Your task to perform on an android device: toggle show notifications on the lock screen Image 0: 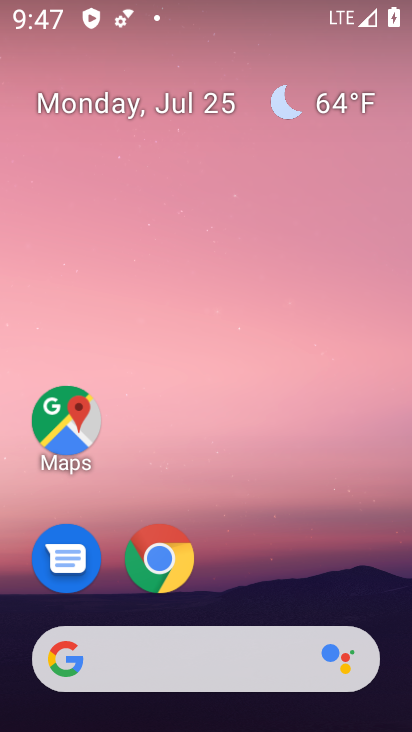
Step 0: drag from (340, 548) to (325, 158)
Your task to perform on an android device: toggle show notifications on the lock screen Image 1: 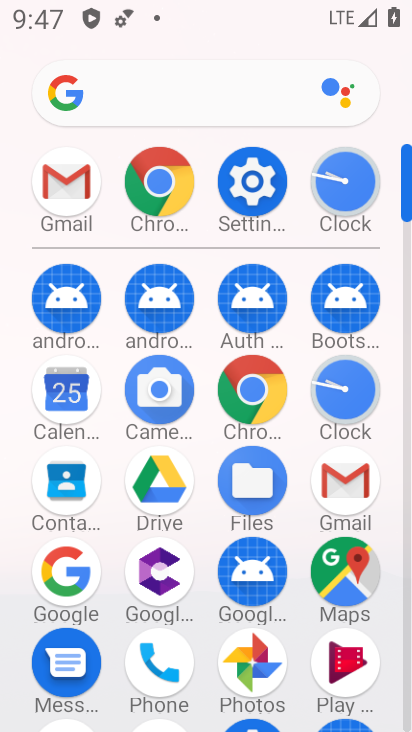
Step 1: click (258, 189)
Your task to perform on an android device: toggle show notifications on the lock screen Image 2: 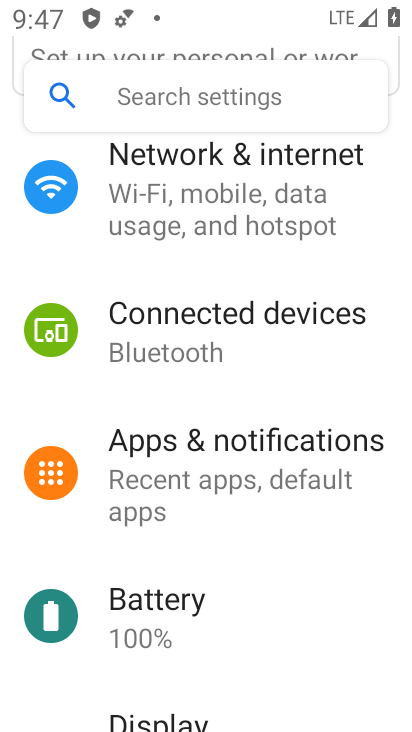
Step 2: drag from (326, 574) to (336, 467)
Your task to perform on an android device: toggle show notifications on the lock screen Image 3: 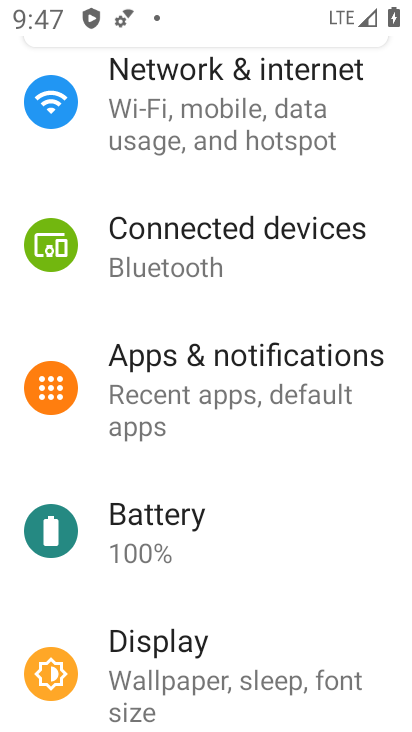
Step 3: drag from (346, 572) to (351, 490)
Your task to perform on an android device: toggle show notifications on the lock screen Image 4: 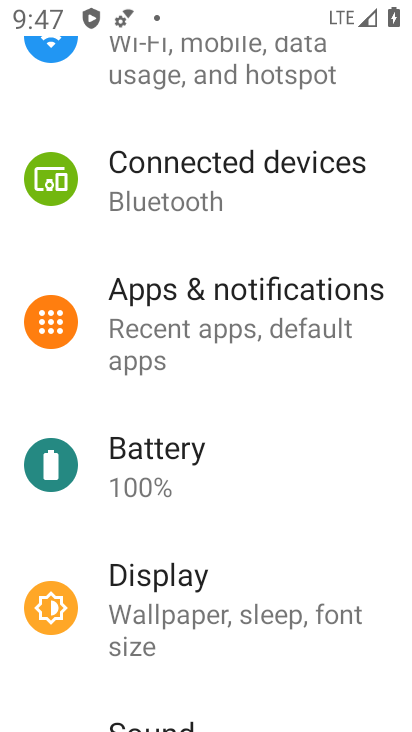
Step 4: drag from (366, 641) to (365, 513)
Your task to perform on an android device: toggle show notifications on the lock screen Image 5: 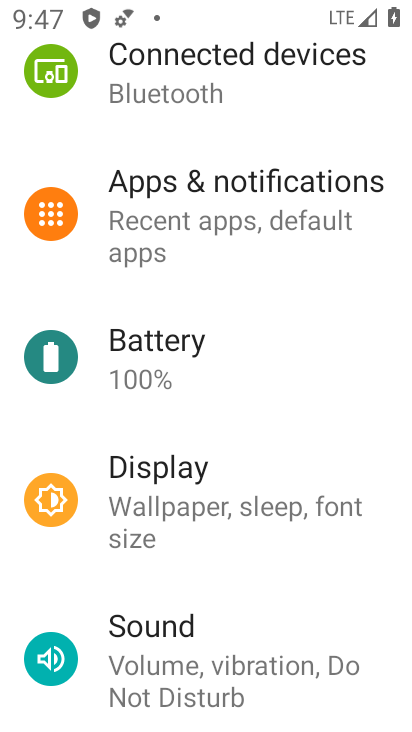
Step 5: drag from (367, 588) to (370, 486)
Your task to perform on an android device: toggle show notifications on the lock screen Image 6: 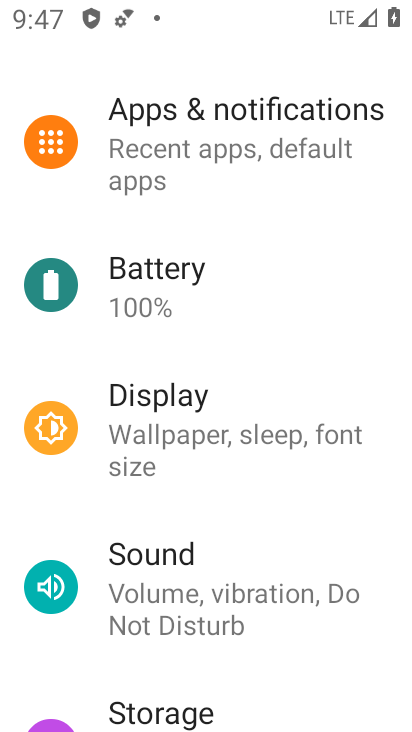
Step 6: drag from (356, 638) to (368, 512)
Your task to perform on an android device: toggle show notifications on the lock screen Image 7: 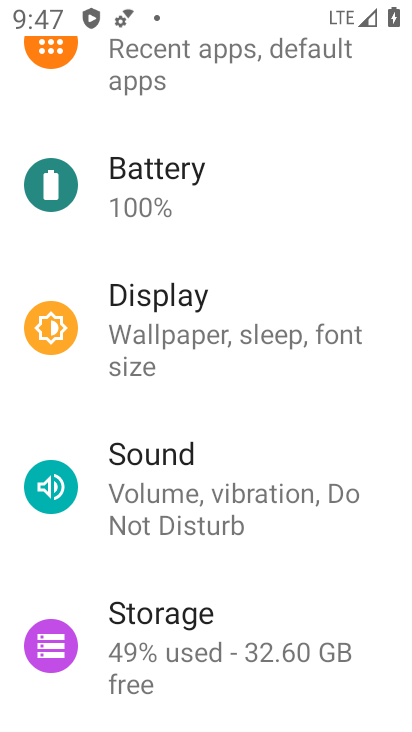
Step 7: drag from (372, 279) to (374, 383)
Your task to perform on an android device: toggle show notifications on the lock screen Image 8: 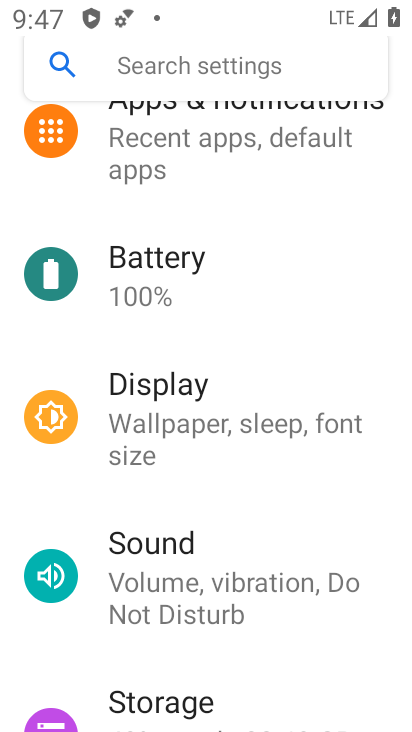
Step 8: drag from (372, 261) to (371, 370)
Your task to perform on an android device: toggle show notifications on the lock screen Image 9: 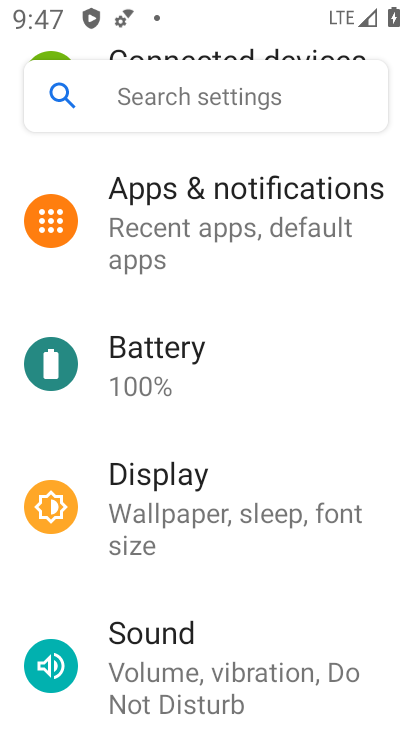
Step 9: drag from (370, 272) to (363, 533)
Your task to perform on an android device: toggle show notifications on the lock screen Image 10: 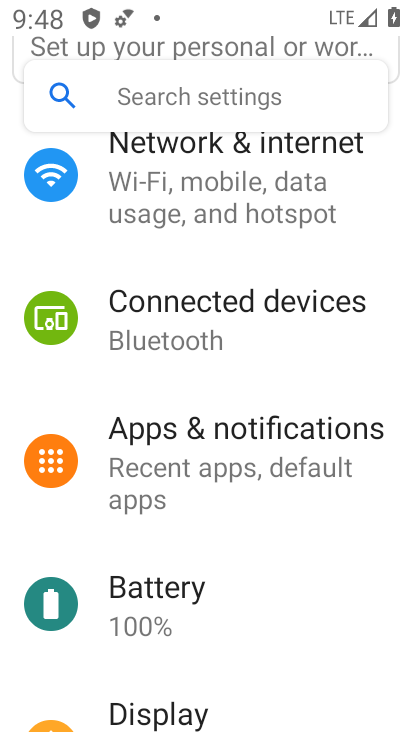
Step 10: drag from (360, 366) to (353, 573)
Your task to perform on an android device: toggle show notifications on the lock screen Image 11: 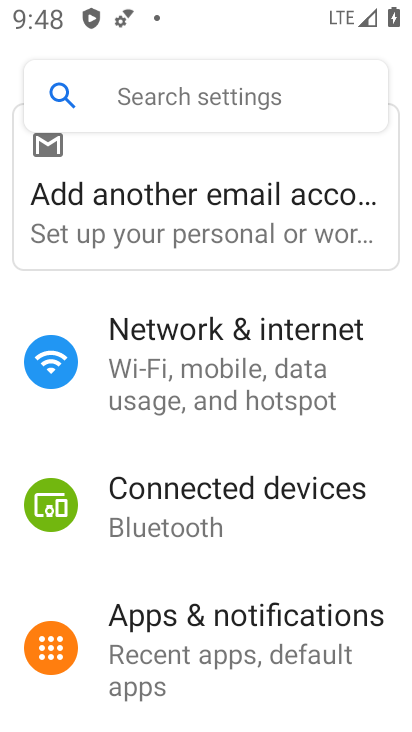
Step 11: click (297, 655)
Your task to perform on an android device: toggle show notifications on the lock screen Image 12: 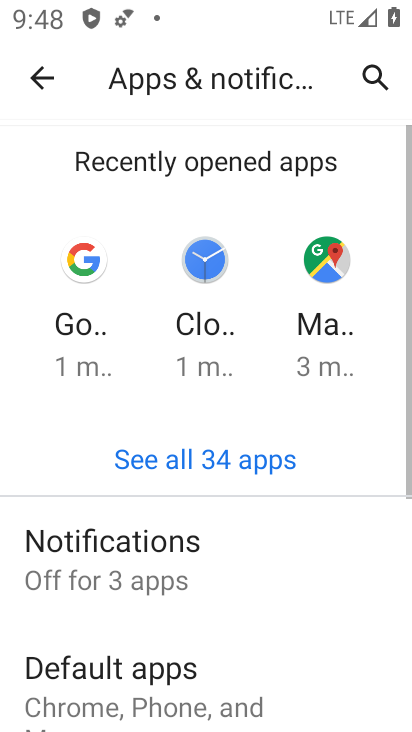
Step 12: drag from (315, 616) to (336, 495)
Your task to perform on an android device: toggle show notifications on the lock screen Image 13: 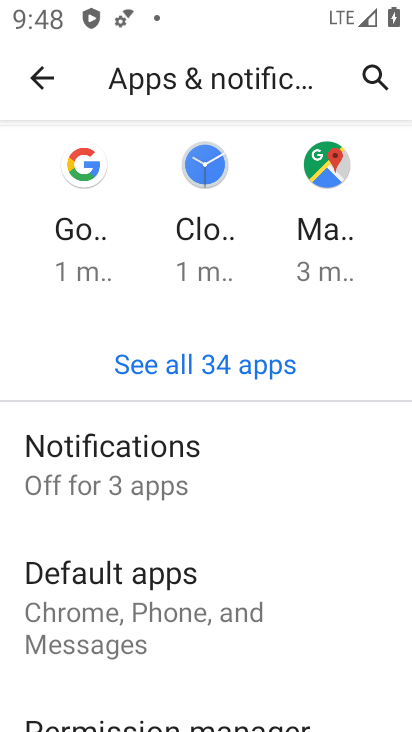
Step 13: drag from (331, 586) to (335, 480)
Your task to perform on an android device: toggle show notifications on the lock screen Image 14: 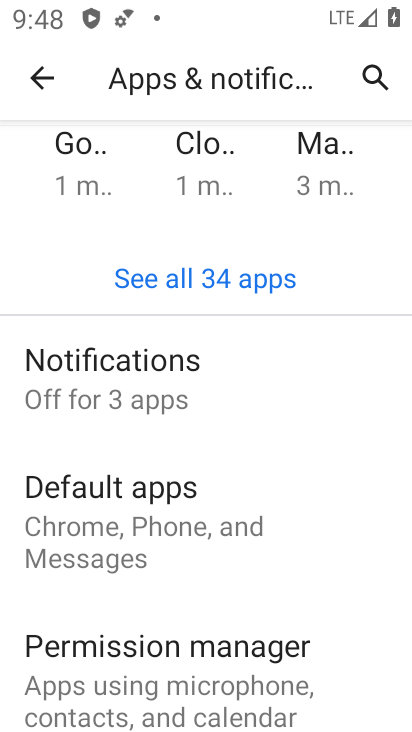
Step 14: drag from (328, 520) to (329, 395)
Your task to perform on an android device: toggle show notifications on the lock screen Image 15: 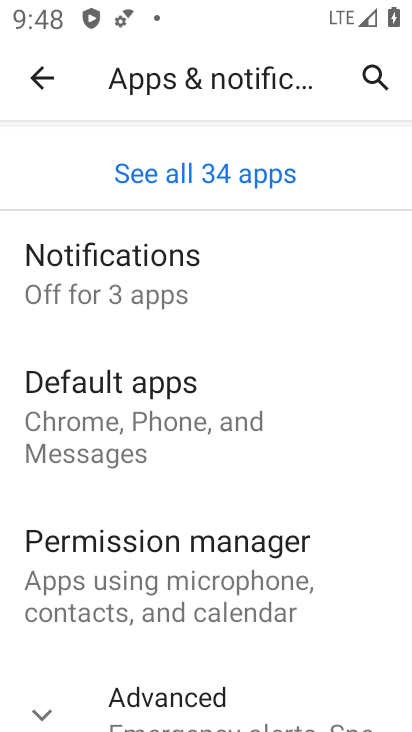
Step 15: click (190, 272)
Your task to perform on an android device: toggle show notifications on the lock screen Image 16: 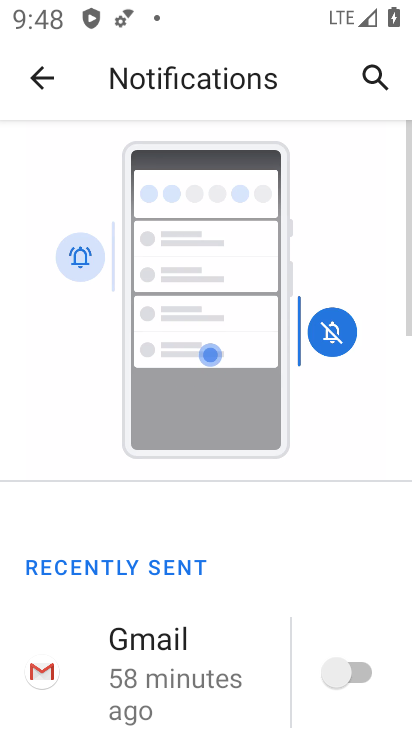
Step 16: drag from (330, 492) to (340, 386)
Your task to perform on an android device: toggle show notifications on the lock screen Image 17: 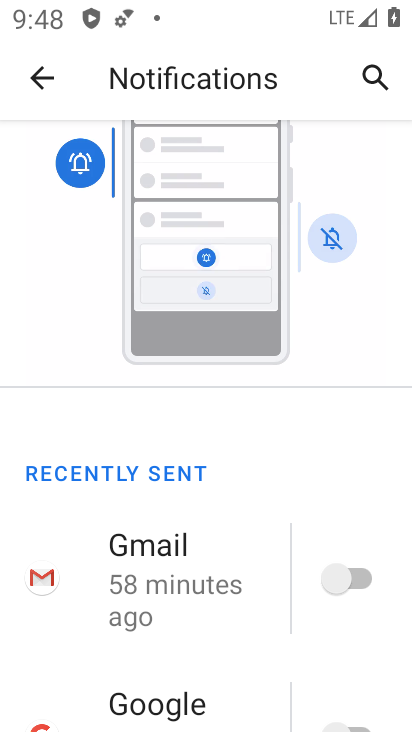
Step 17: drag from (251, 563) to (256, 461)
Your task to perform on an android device: toggle show notifications on the lock screen Image 18: 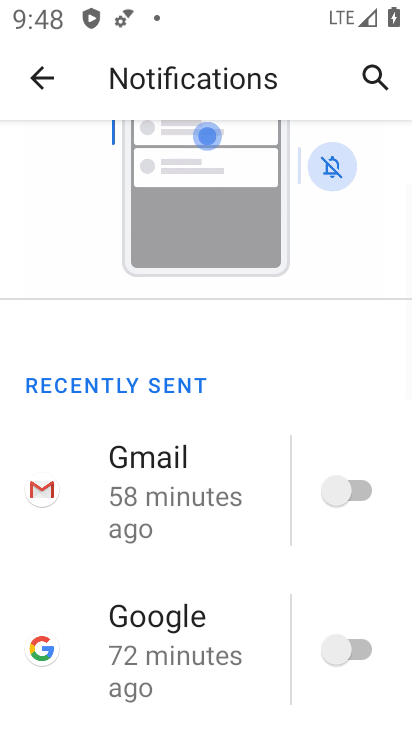
Step 18: drag from (242, 573) to (239, 464)
Your task to perform on an android device: toggle show notifications on the lock screen Image 19: 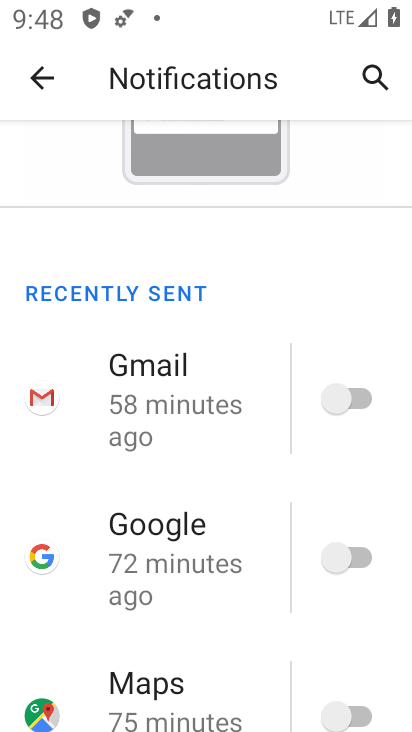
Step 19: drag from (217, 613) to (237, 487)
Your task to perform on an android device: toggle show notifications on the lock screen Image 20: 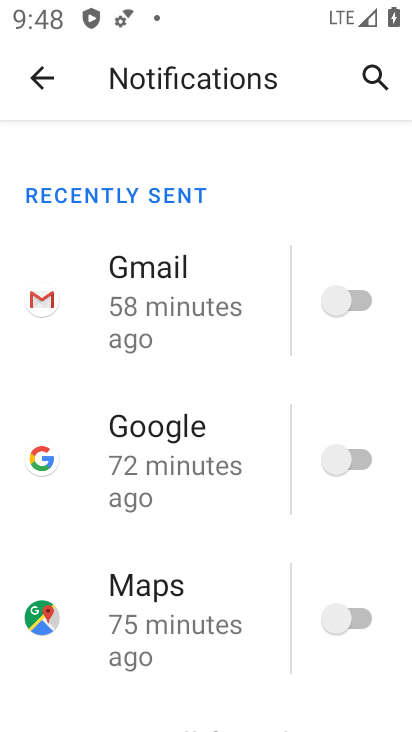
Step 20: drag from (253, 635) to (264, 514)
Your task to perform on an android device: toggle show notifications on the lock screen Image 21: 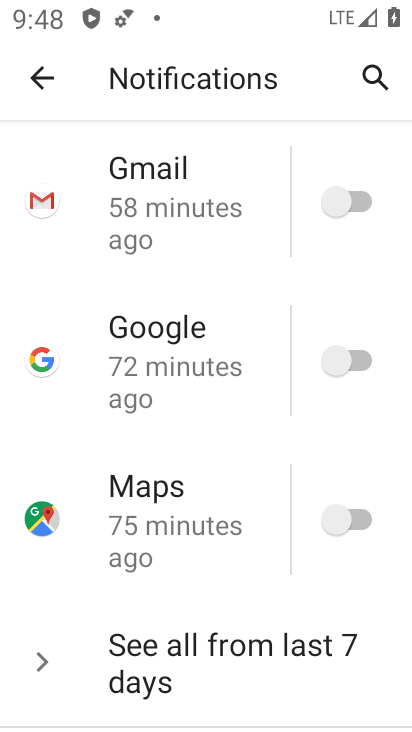
Step 21: drag from (268, 648) to (269, 518)
Your task to perform on an android device: toggle show notifications on the lock screen Image 22: 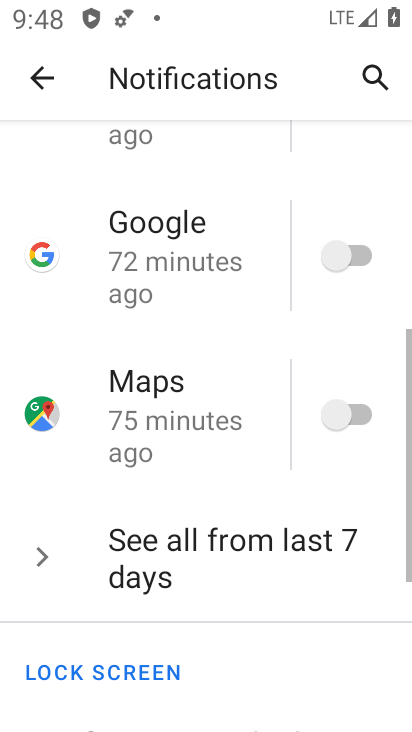
Step 22: drag from (281, 670) to (284, 536)
Your task to perform on an android device: toggle show notifications on the lock screen Image 23: 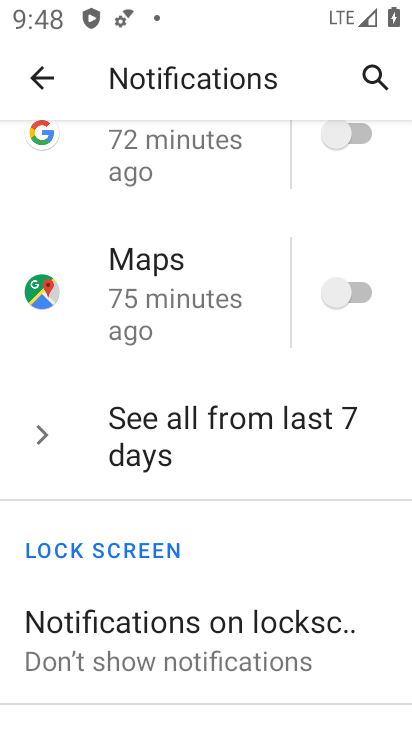
Step 23: drag from (269, 663) to (271, 525)
Your task to perform on an android device: toggle show notifications on the lock screen Image 24: 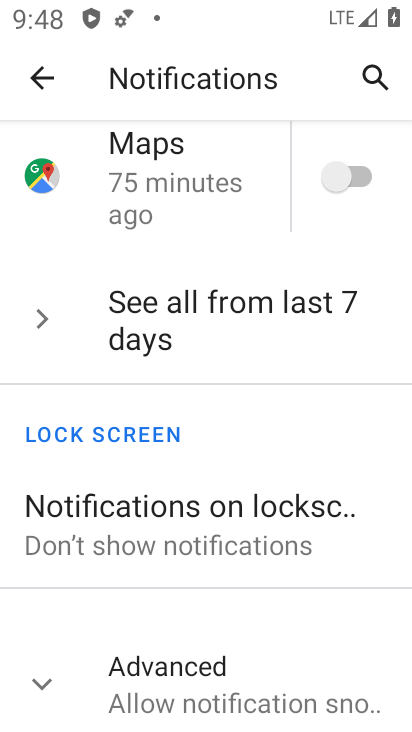
Step 24: click (257, 521)
Your task to perform on an android device: toggle show notifications on the lock screen Image 25: 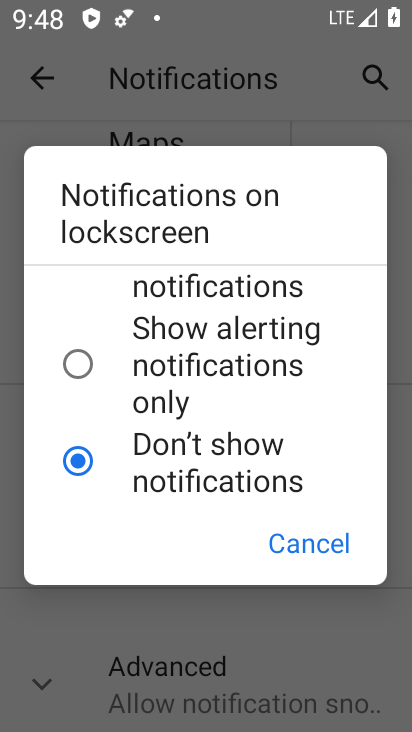
Step 25: click (145, 339)
Your task to perform on an android device: toggle show notifications on the lock screen Image 26: 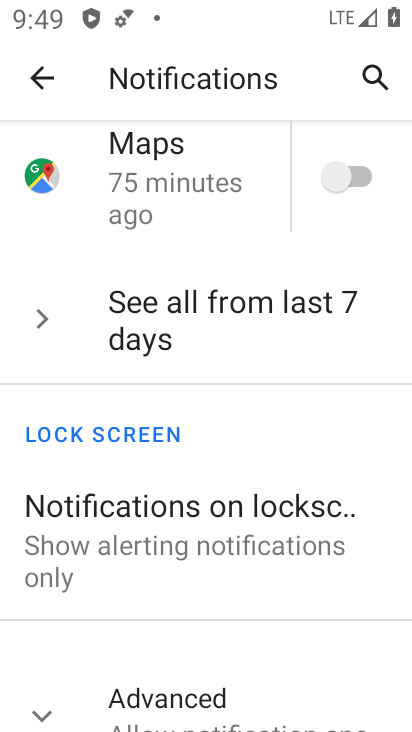
Step 26: task complete